Your task to perform on an android device: change the clock display to analog Image 0: 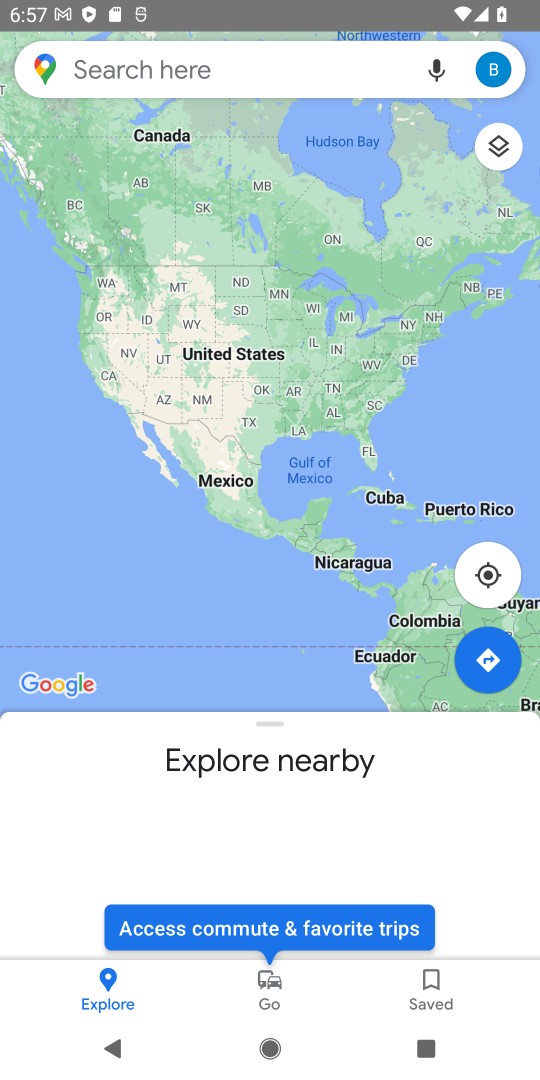
Step 0: press home button
Your task to perform on an android device: change the clock display to analog Image 1: 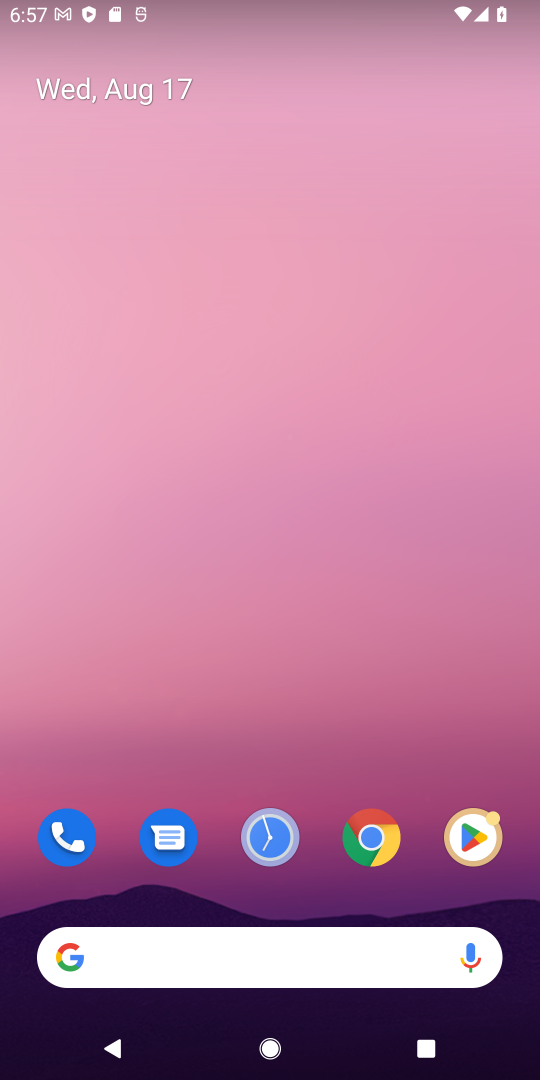
Step 1: click (267, 837)
Your task to perform on an android device: change the clock display to analog Image 2: 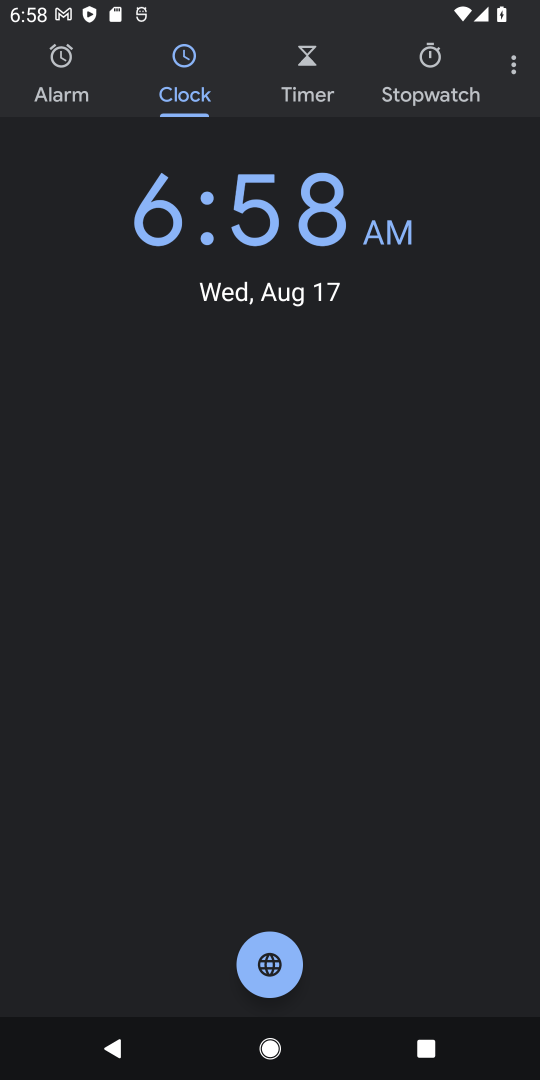
Step 2: click (520, 66)
Your task to perform on an android device: change the clock display to analog Image 3: 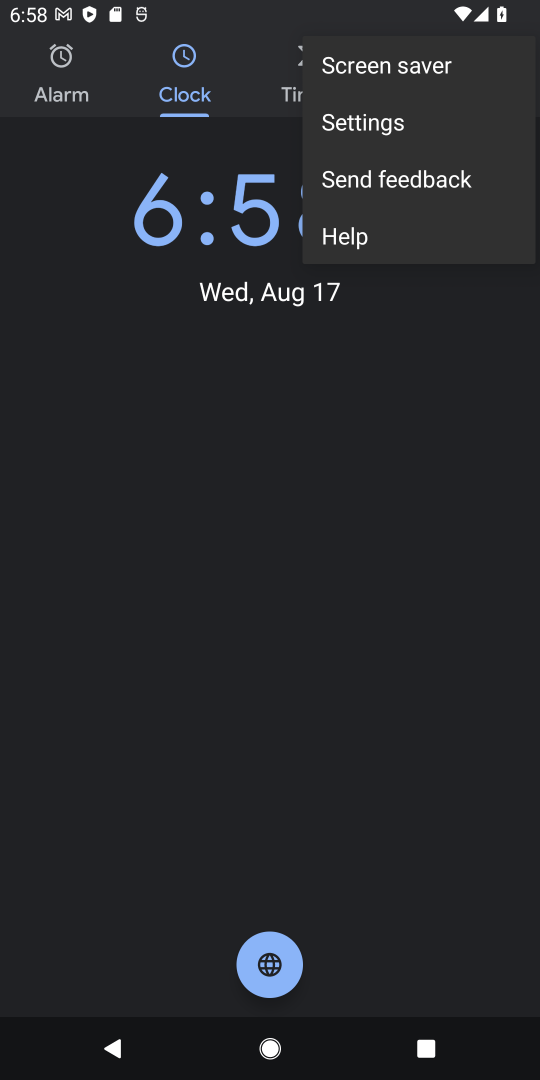
Step 3: click (421, 129)
Your task to perform on an android device: change the clock display to analog Image 4: 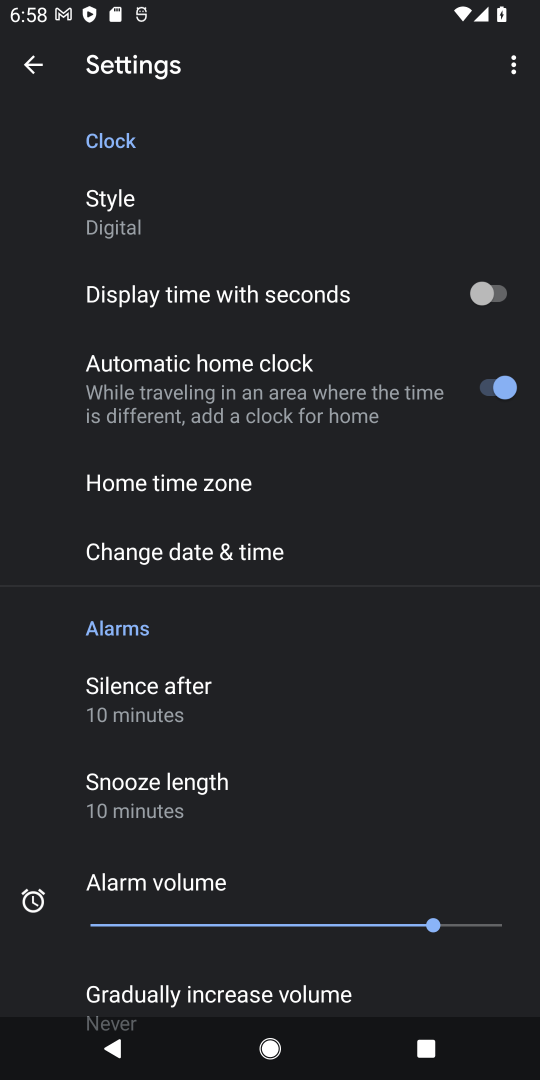
Step 4: click (154, 227)
Your task to perform on an android device: change the clock display to analog Image 5: 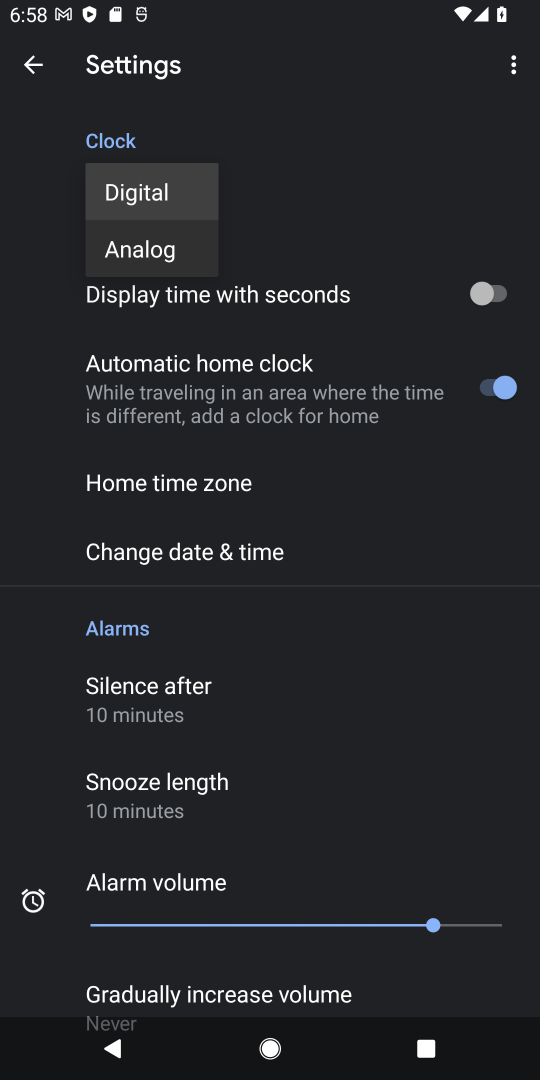
Step 5: click (153, 248)
Your task to perform on an android device: change the clock display to analog Image 6: 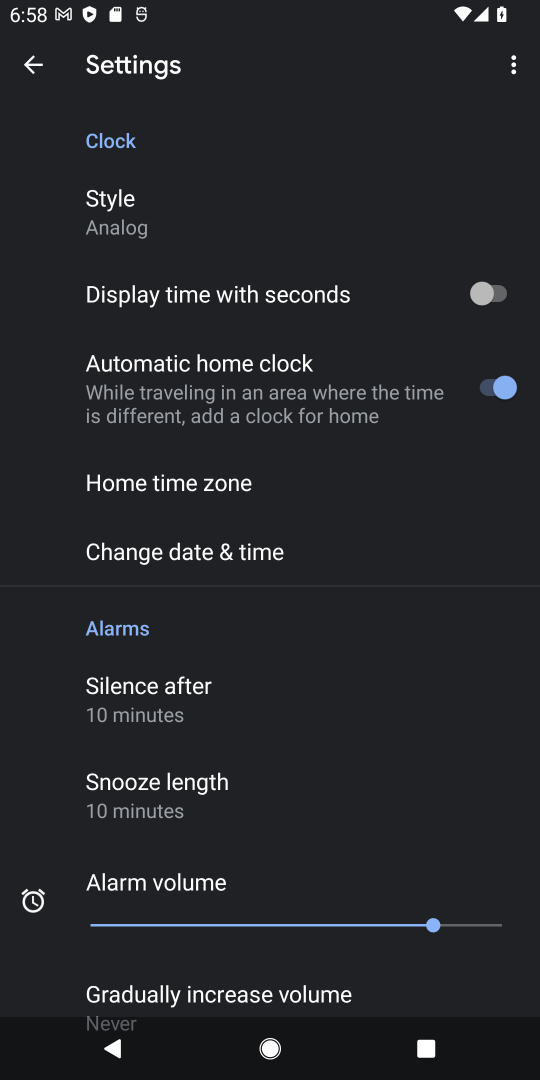
Step 6: click (44, 69)
Your task to perform on an android device: change the clock display to analog Image 7: 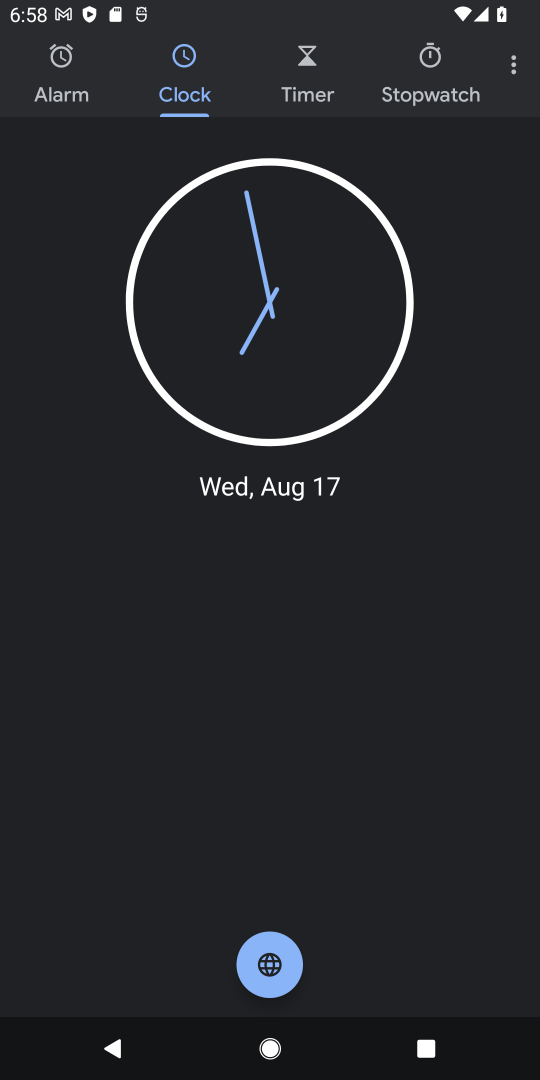
Step 7: task complete